Your task to perform on an android device: What's the news about the US? Image 0: 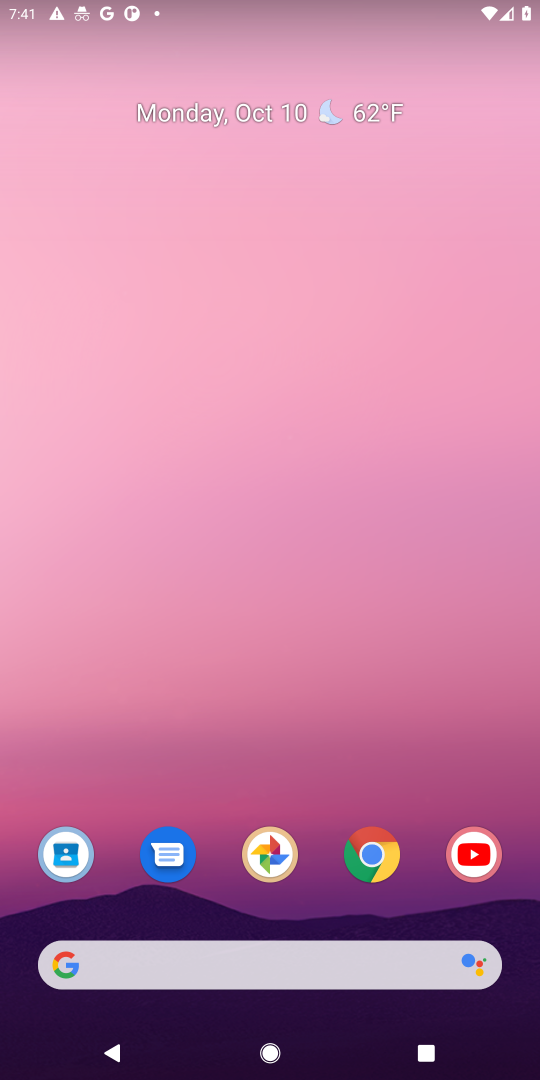
Step 0: click (369, 851)
Your task to perform on an android device: What's the news about the US? Image 1: 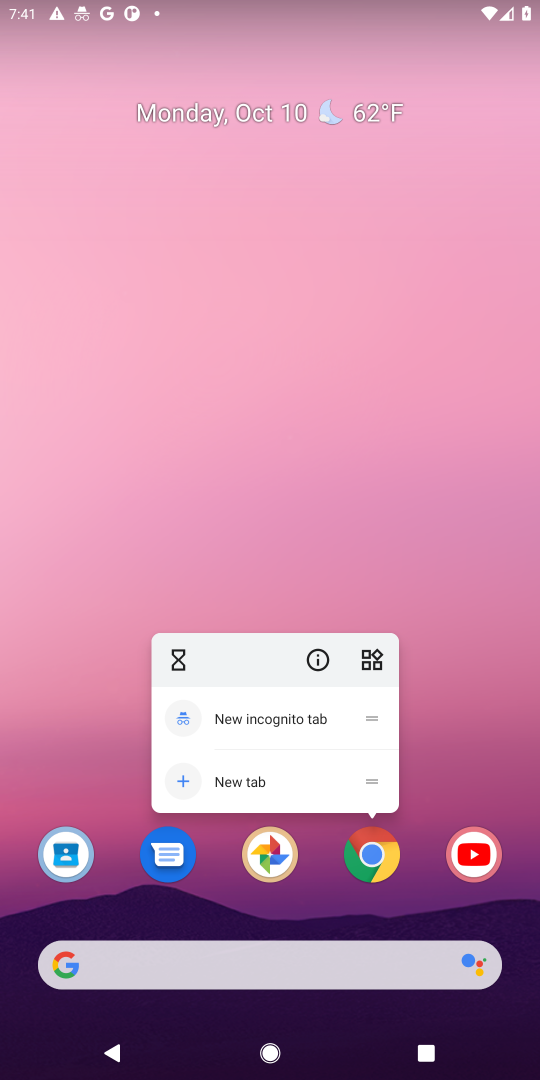
Step 1: click (369, 851)
Your task to perform on an android device: What's the news about the US? Image 2: 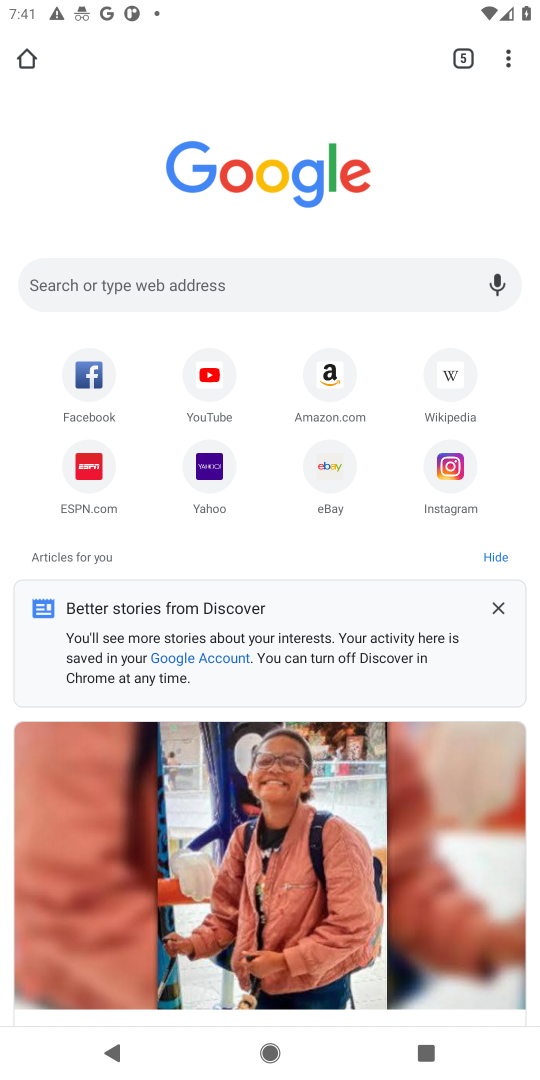
Step 2: click (202, 297)
Your task to perform on an android device: What's the news about the US? Image 3: 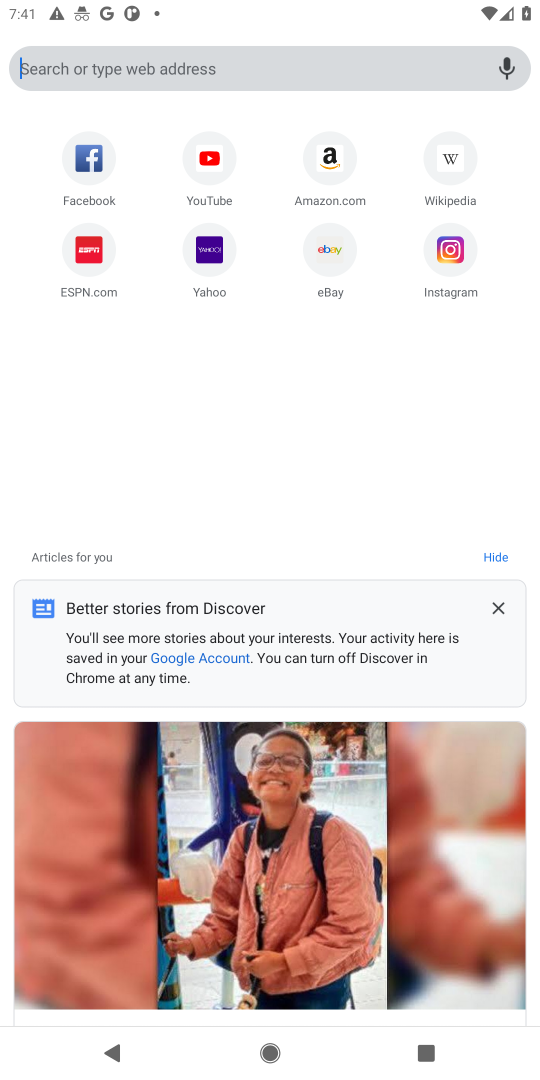
Step 3: click (182, 283)
Your task to perform on an android device: What's the news about the US? Image 4: 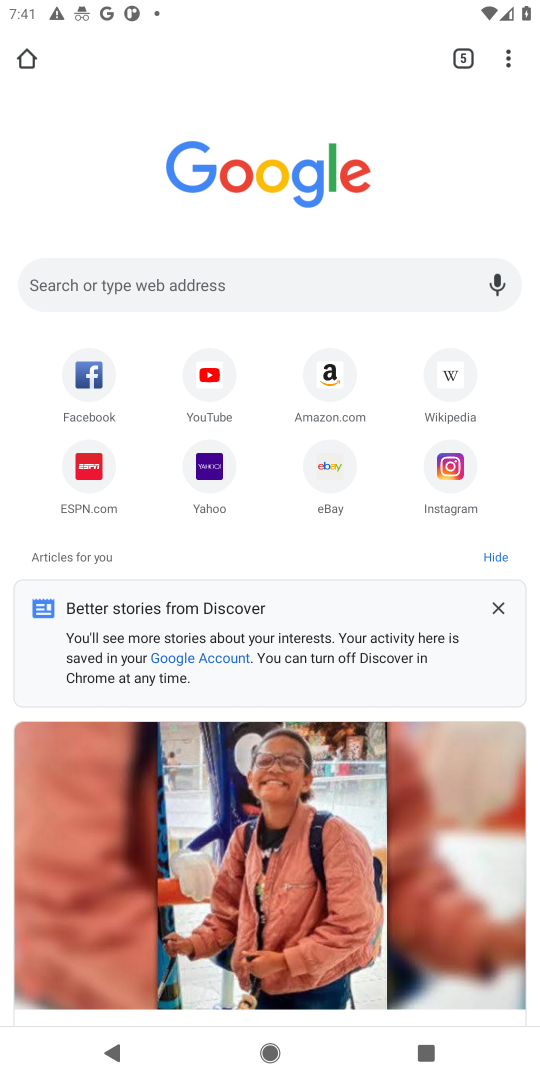
Step 4: click (95, 281)
Your task to perform on an android device: What's the news about the US? Image 5: 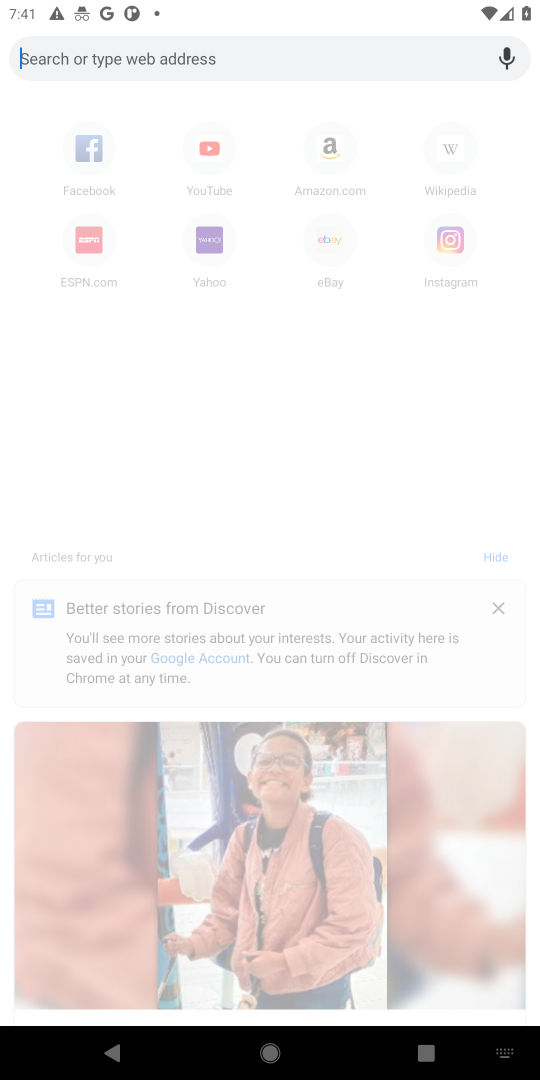
Step 5: type " news about the US"
Your task to perform on an android device: What's the news about the US? Image 6: 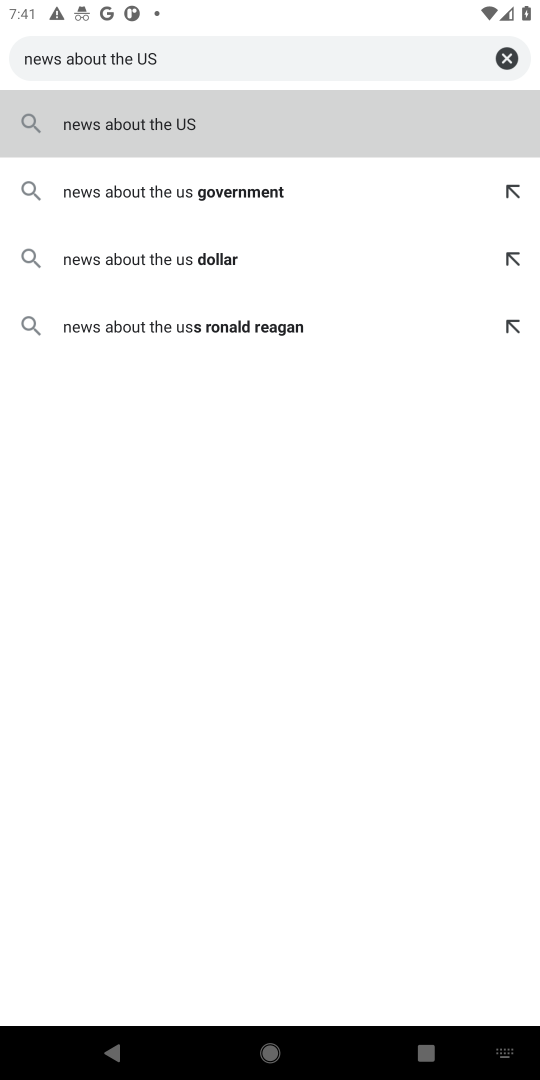
Step 6: click (111, 129)
Your task to perform on an android device: What's the news about the US? Image 7: 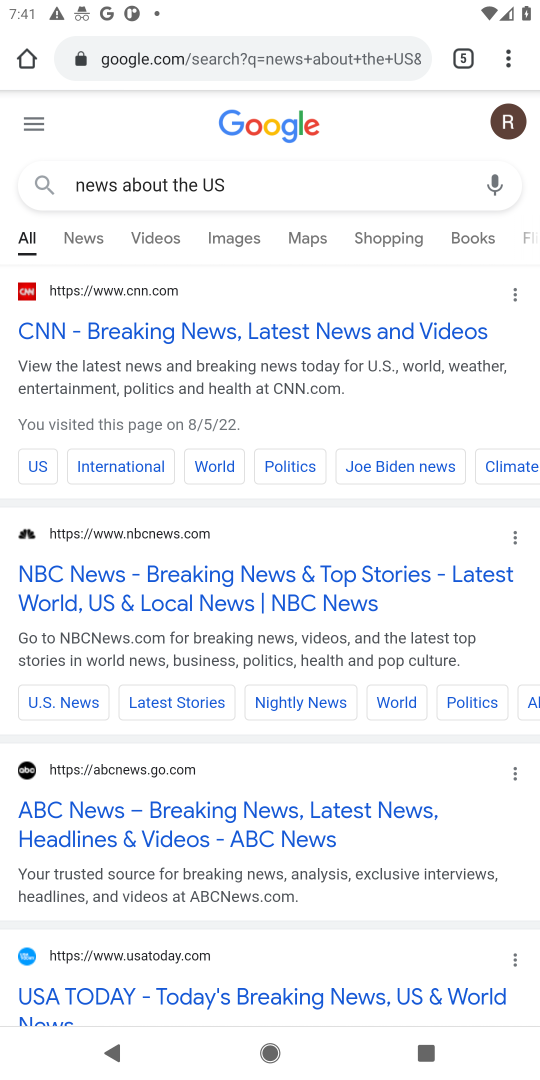
Step 7: click (83, 233)
Your task to perform on an android device: What's the news about the US? Image 8: 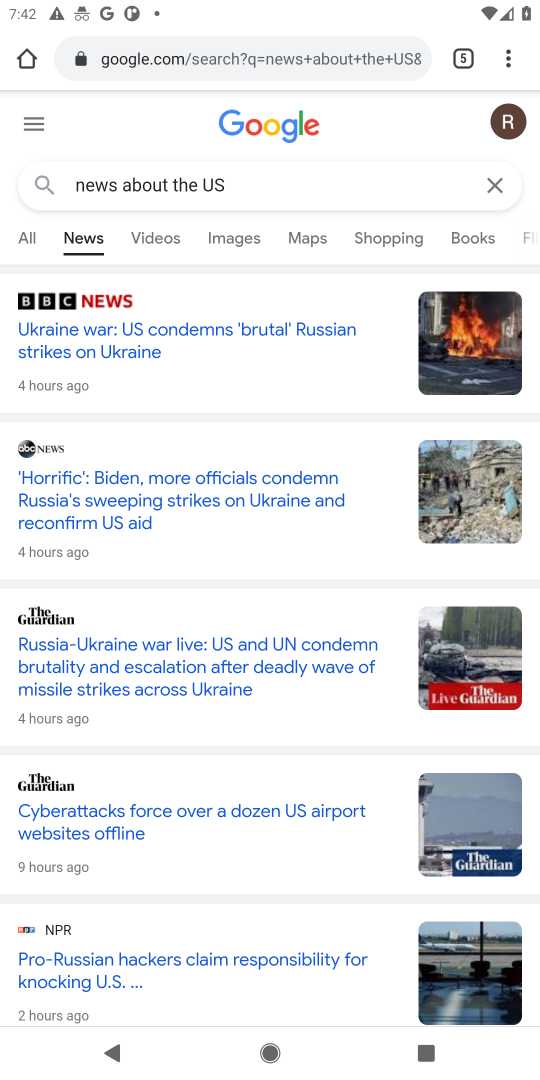
Step 8: task complete